Your task to perform on an android device: Open Google Maps Image 0: 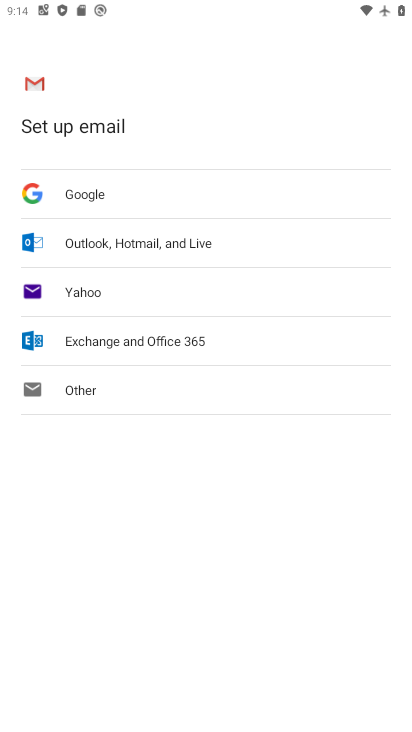
Step 0: press home button
Your task to perform on an android device: Open Google Maps Image 1: 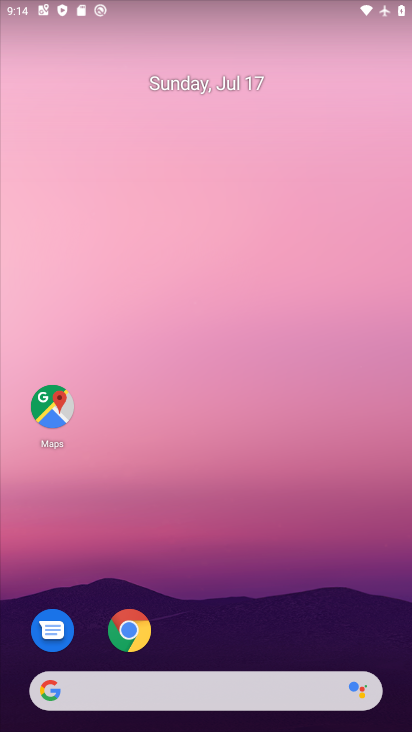
Step 1: click (59, 392)
Your task to perform on an android device: Open Google Maps Image 2: 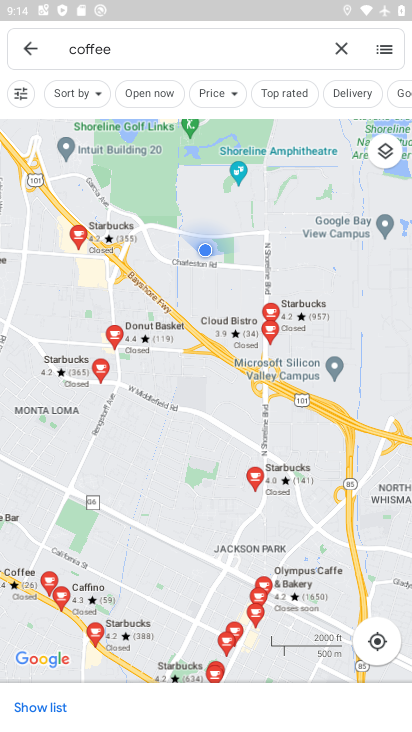
Step 2: task complete